Your task to perform on an android device: Go to Yahoo.com Image 0: 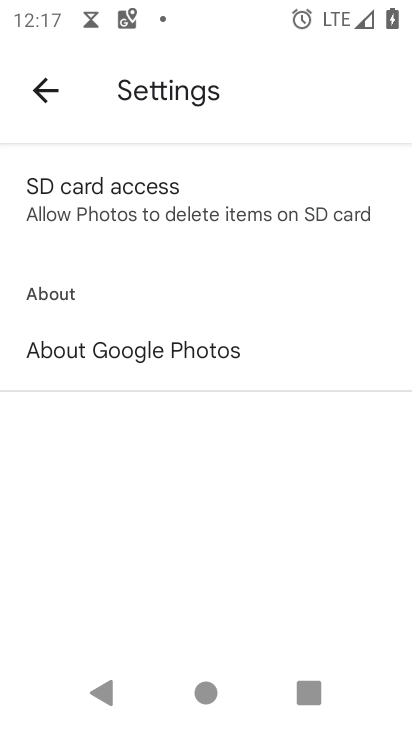
Step 0: press home button
Your task to perform on an android device: Go to Yahoo.com Image 1: 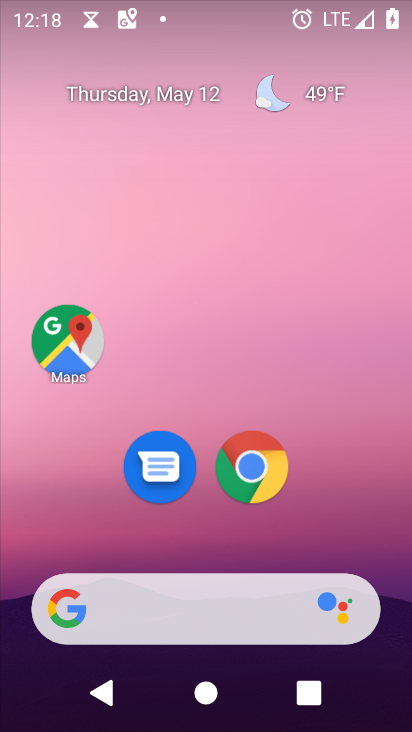
Step 1: click (270, 465)
Your task to perform on an android device: Go to Yahoo.com Image 2: 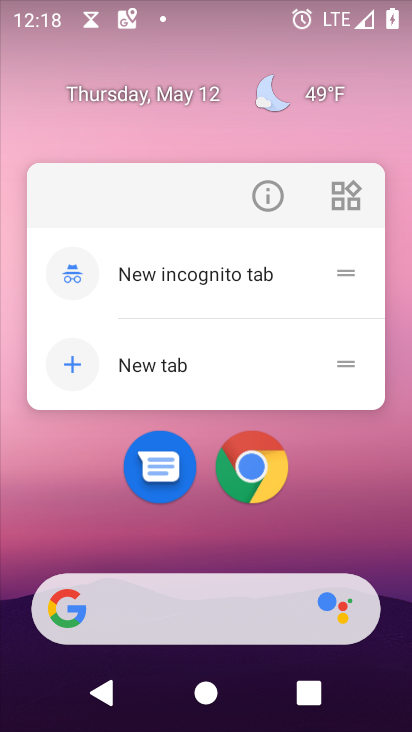
Step 2: click (258, 472)
Your task to perform on an android device: Go to Yahoo.com Image 3: 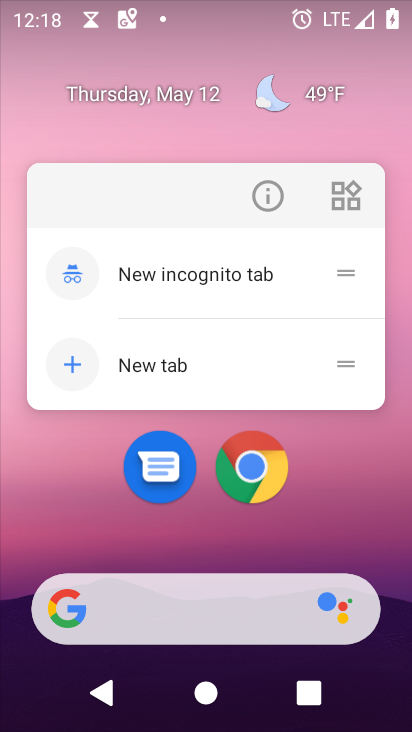
Step 3: click (250, 467)
Your task to perform on an android device: Go to Yahoo.com Image 4: 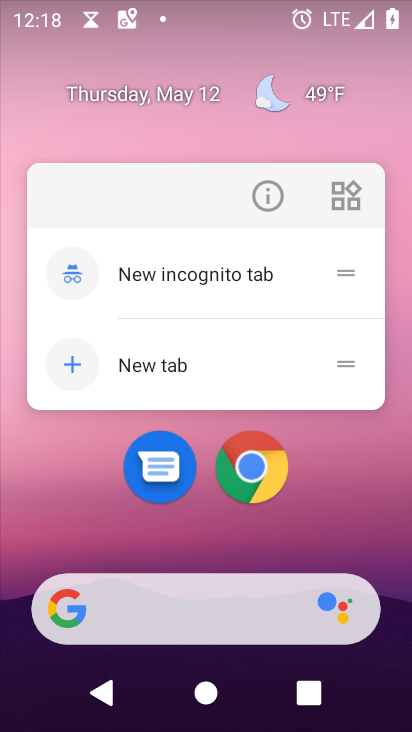
Step 4: click (270, 467)
Your task to perform on an android device: Go to Yahoo.com Image 5: 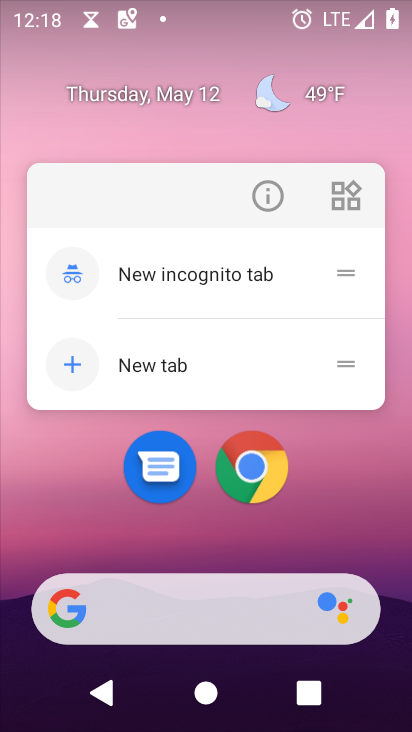
Step 5: click (256, 476)
Your task to perform on an android device: Go to Yahoo.com Image 6: 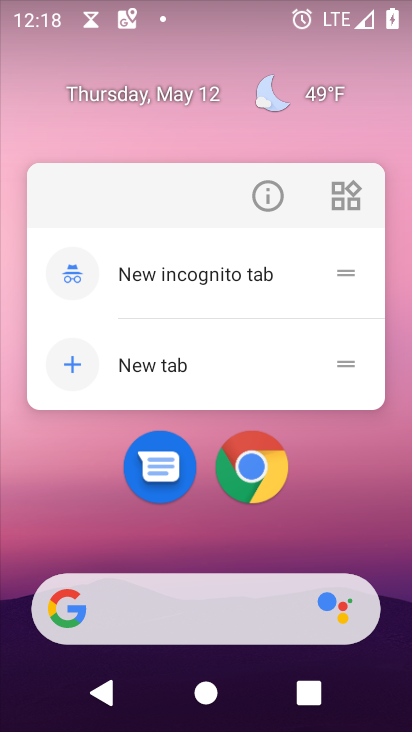
Step 6: click (245, 471)
Your task to perform on an android device: Go to Yahoo.com Image 7: 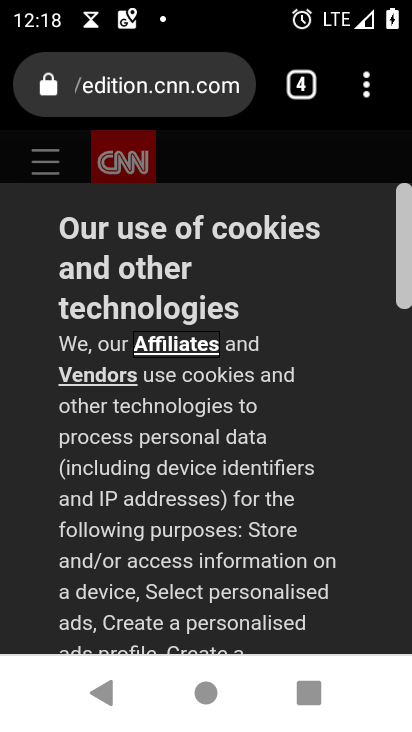
Step 7: click (365, 95)
Your task to perform on an android device: Go to Yahoo.com Image 8: 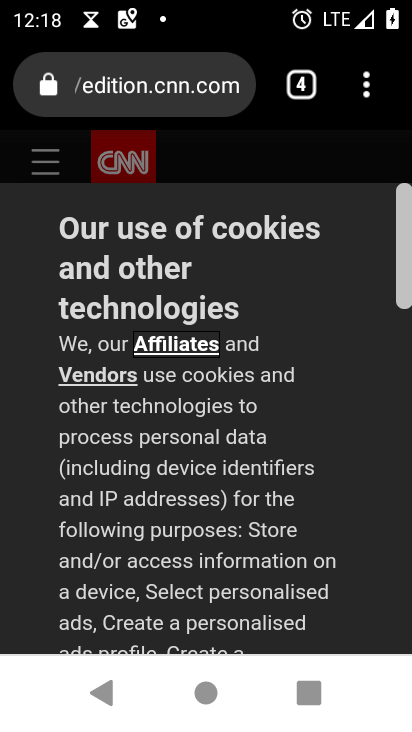
Step 8: drag from (371, 94) to (210, 162)
Your task to perform on an android device: Go to Yahoo.com Image 9: 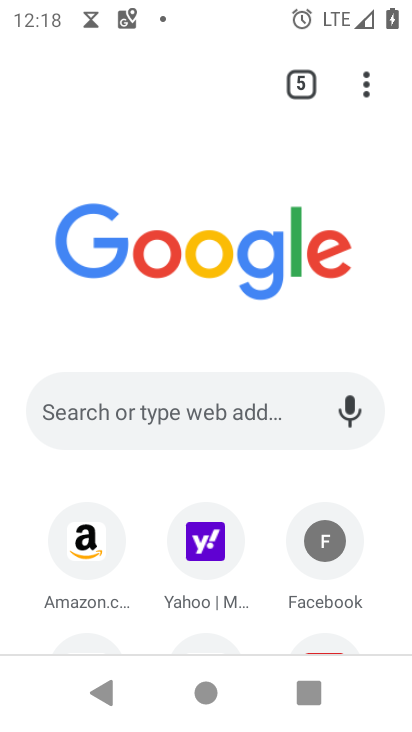
Step 9: click (208, 545)
Your task to perform on an android device: Go to Yahoo.com Image 10: 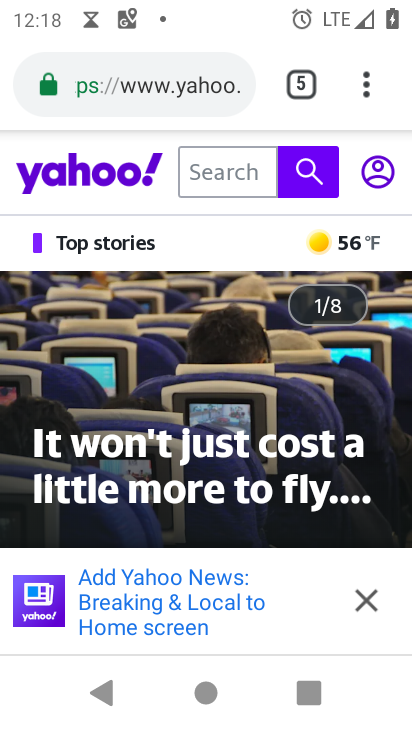
Step 10: task complete